Your task to perform on an android device: View the shopping cart on amazon. Add logitech g pro to the cart on amazon, then select checkout. Image 0: 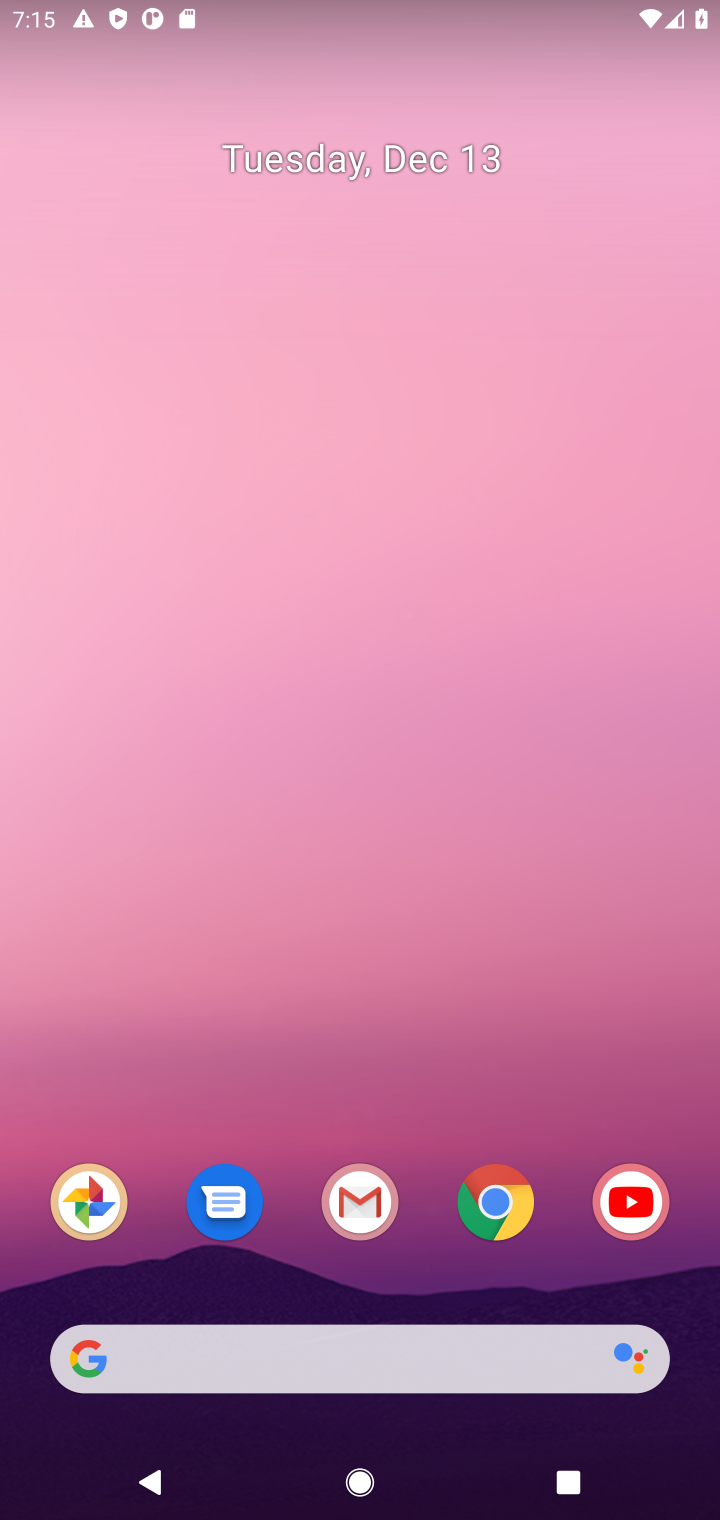
Step 0: click (504, 1214)
Your task to perform on an android device: View the shopping cart on amazon. Add logitech g pro to the cart on amazon, then select checkout. Image 1: 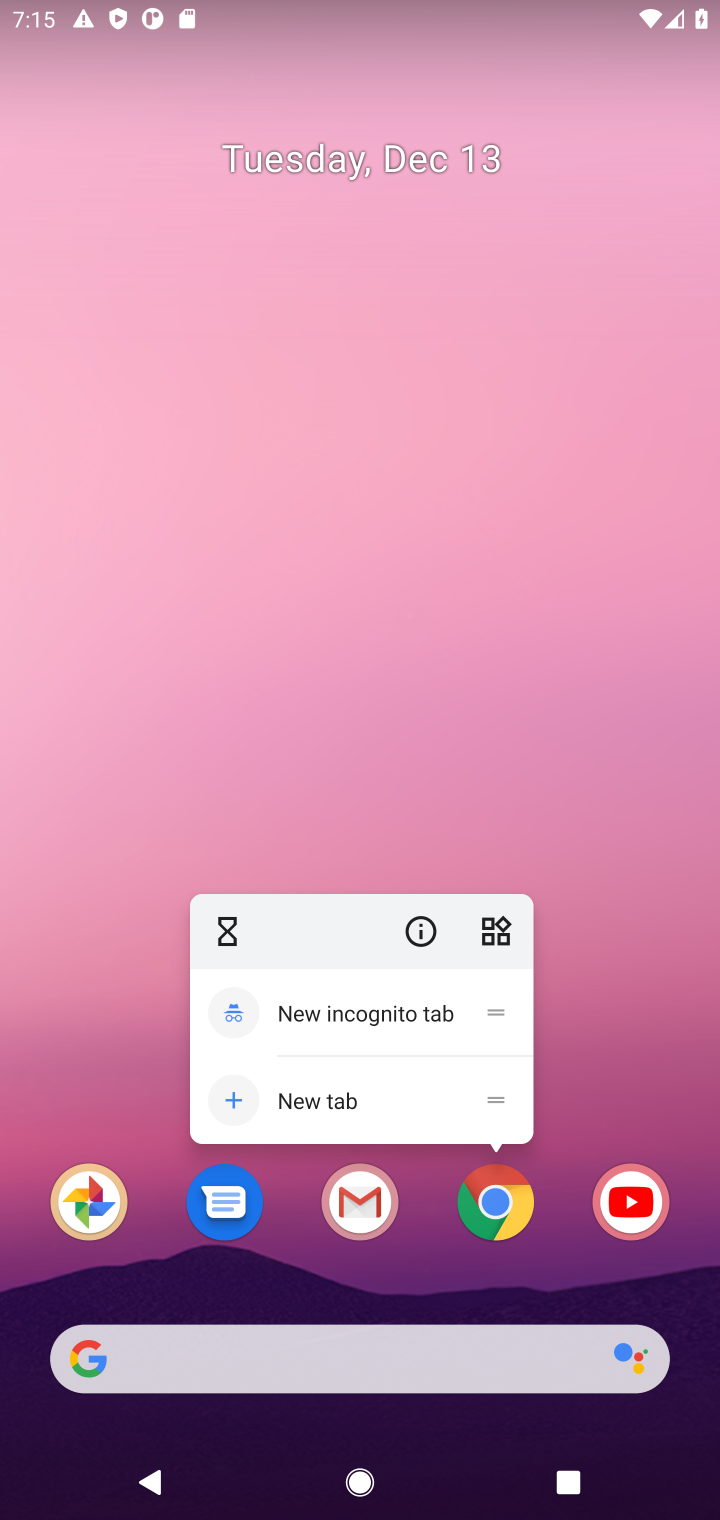
Step 1: click (504, 1214)
Your task to perform on an android device: View the shopping cart on amazon. Add logitech g pro to the cart on amazon, then select checkout. Image 2: 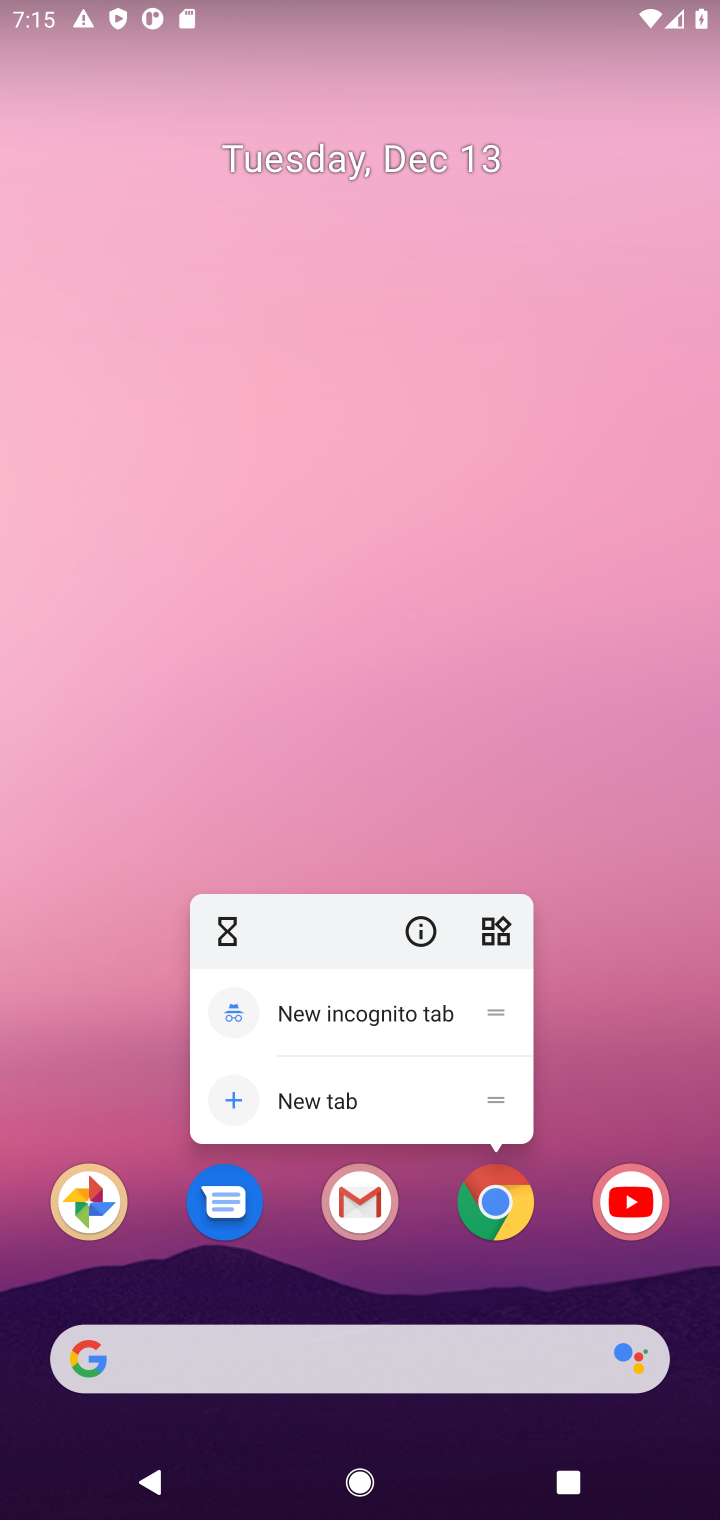
Step 2: click (485, 1208)
Your task to perform on an android device: View the shopping cart on amazon. Add logitech g pro to the cart on amazon, then select checkout. Image 3: 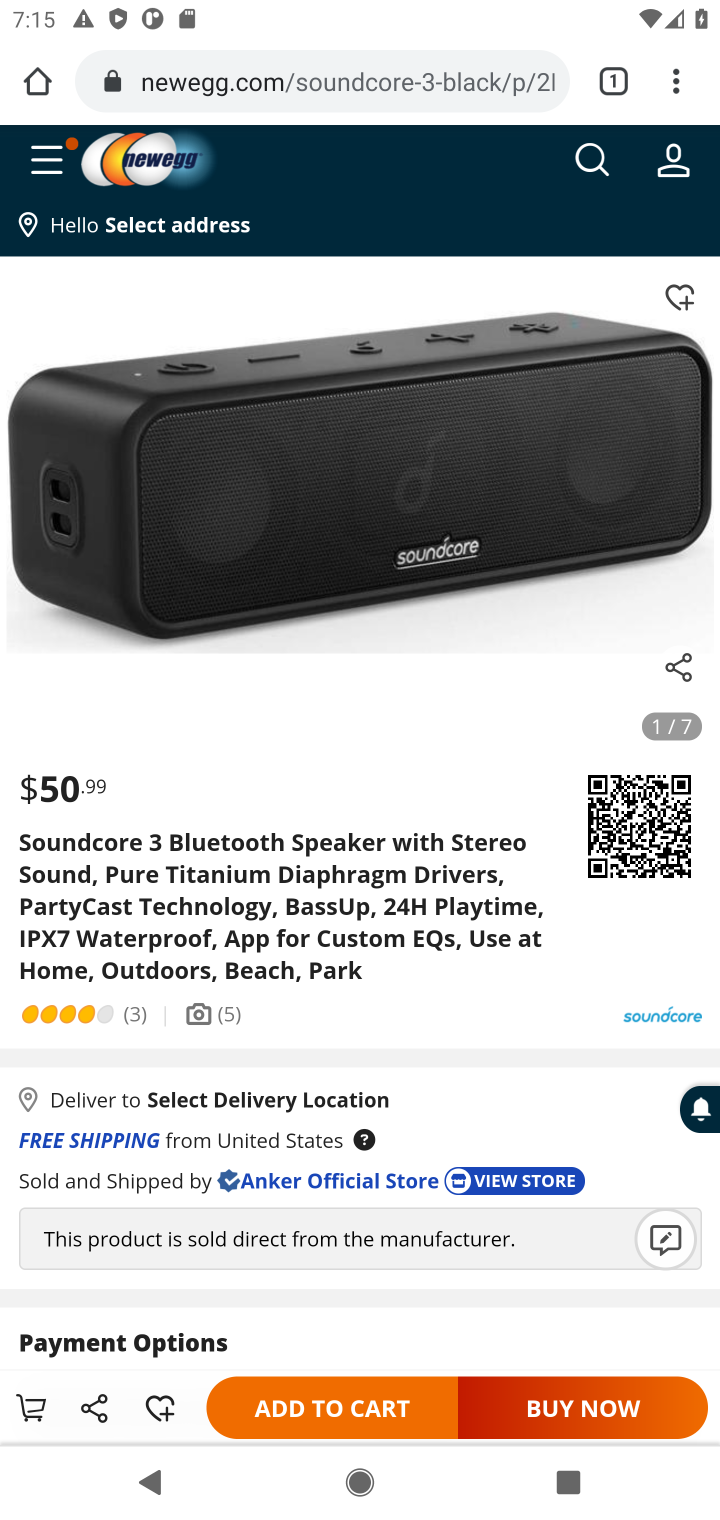
Step 3: click (359, 76)
Your task to perform on an android device: View the shopping cart on amazon. Add logitech g pro to the cart on amazon, then select checkout. Image 4: 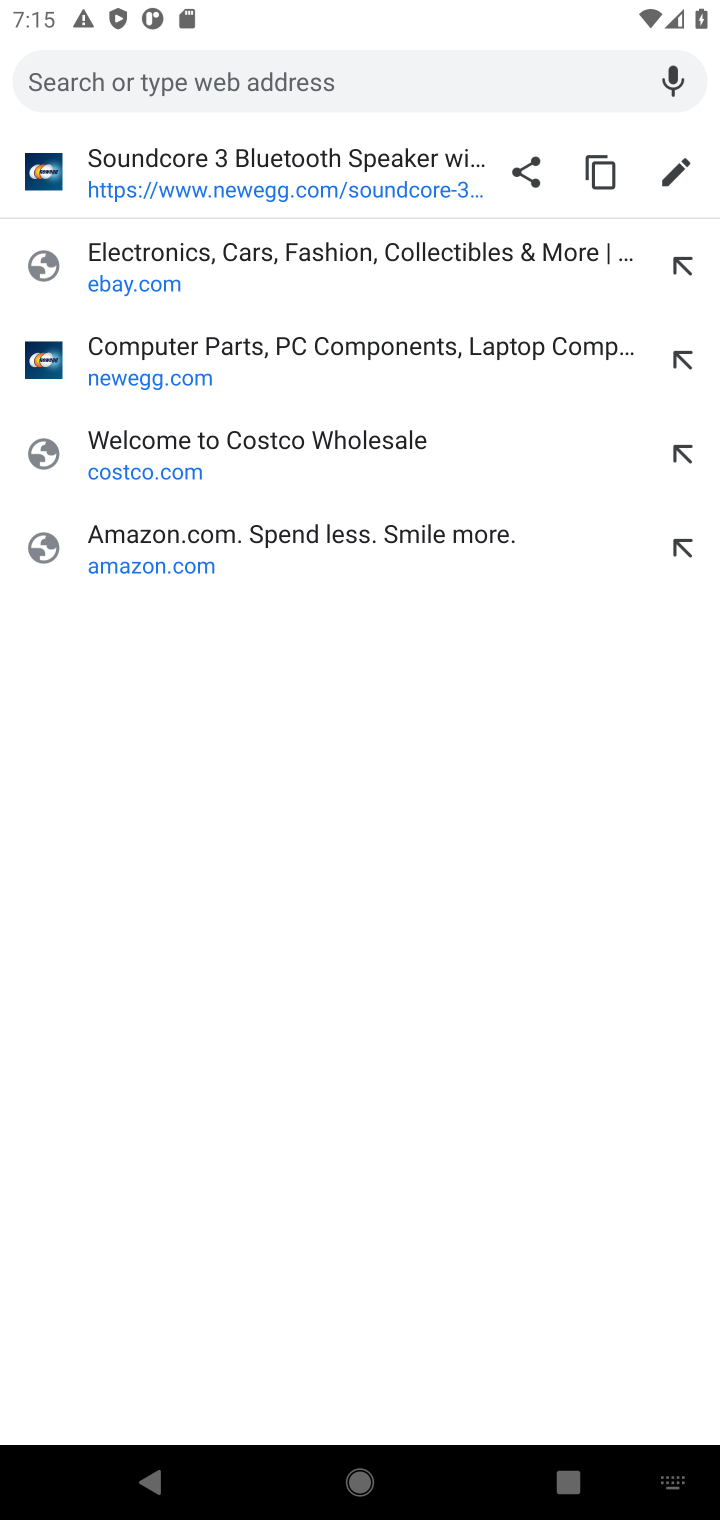
Step 4: click (160, 553)
Your task to perform on an android device: View the shopping cart on amazon. Add logitech g pro to the cart on amazon, then select checkout. Image 5: 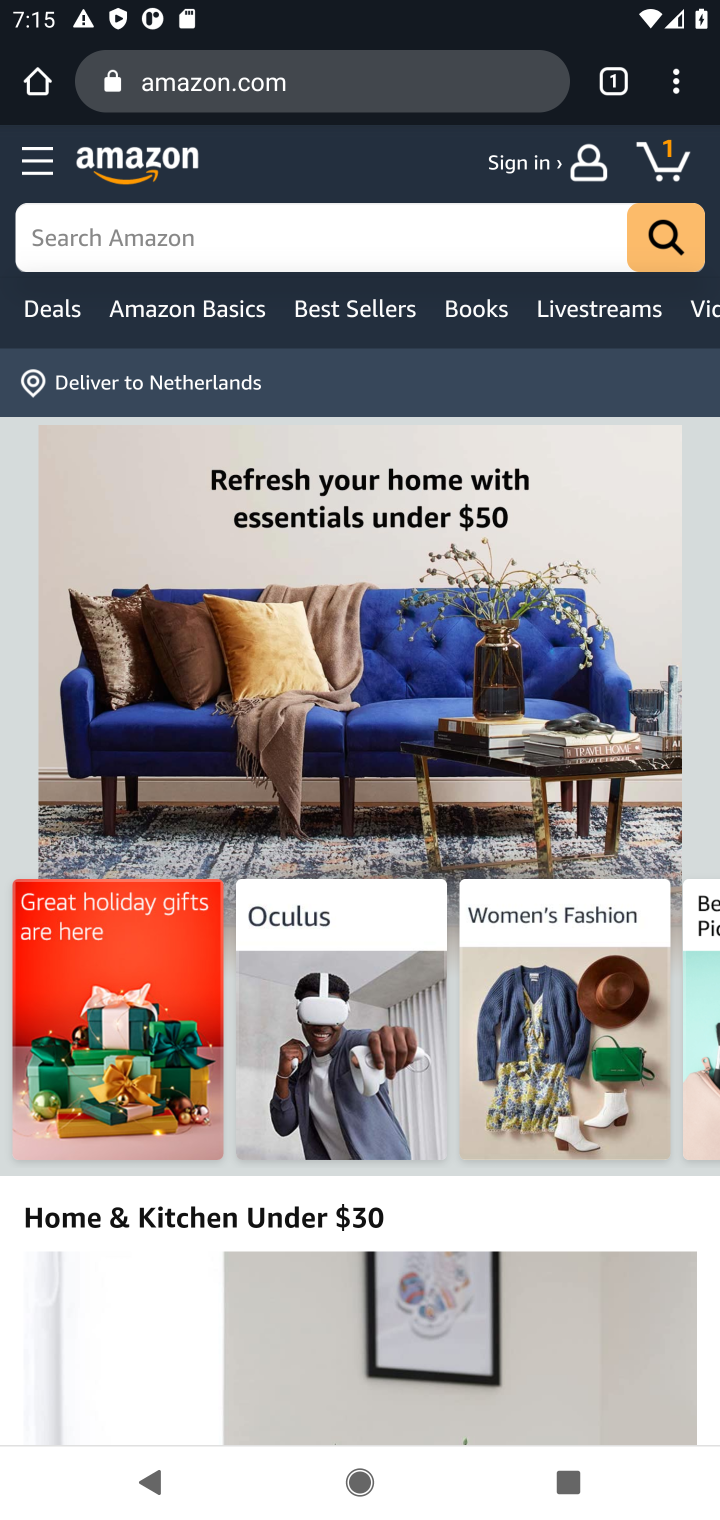
Step 5: click (664, 157)
Your task to perform on an android device: View the shopping cart on amazon. Add logitech g pro to the cart on amazon, then select checkout. Image 6: 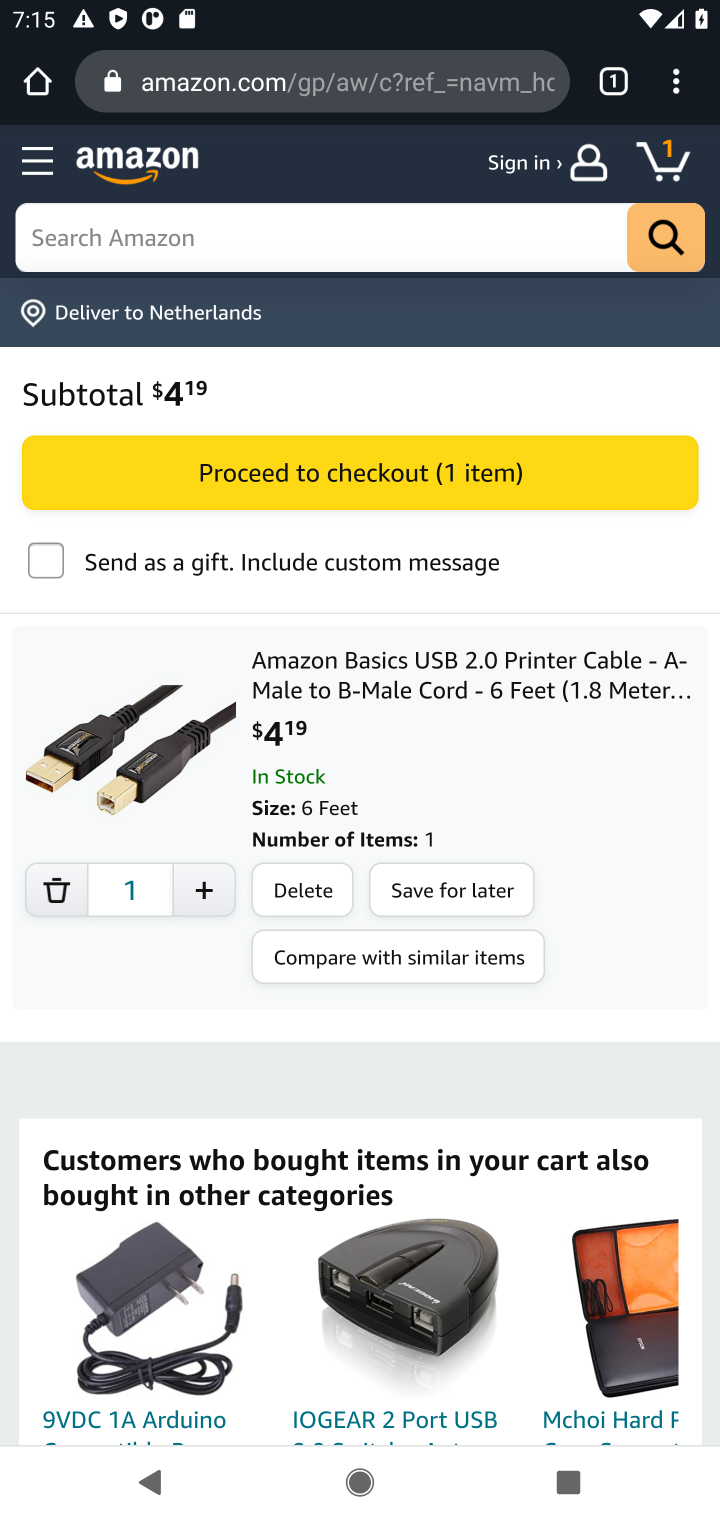
Step 6: click (123, 232)
Your task to perform on an android device: View the shopping cart on amazon. Add logitech g pro to the cart on amazon, then select checkout. Image 7: 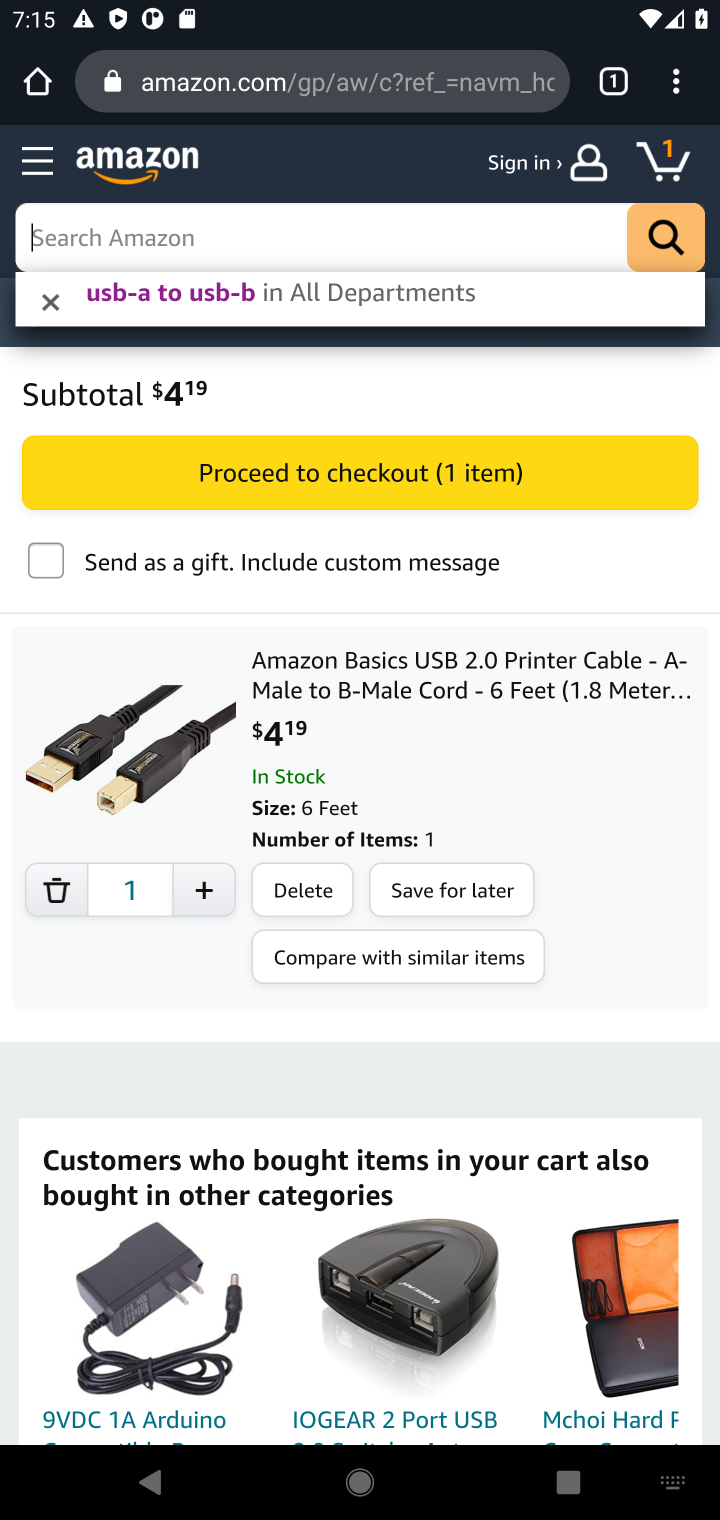
Step 7: type "logitech g pro"
Your task to perform on an android device: View the shopping cart on amazon. Add logitech g pro to the cart on amazon, then select checkout. Image 8: 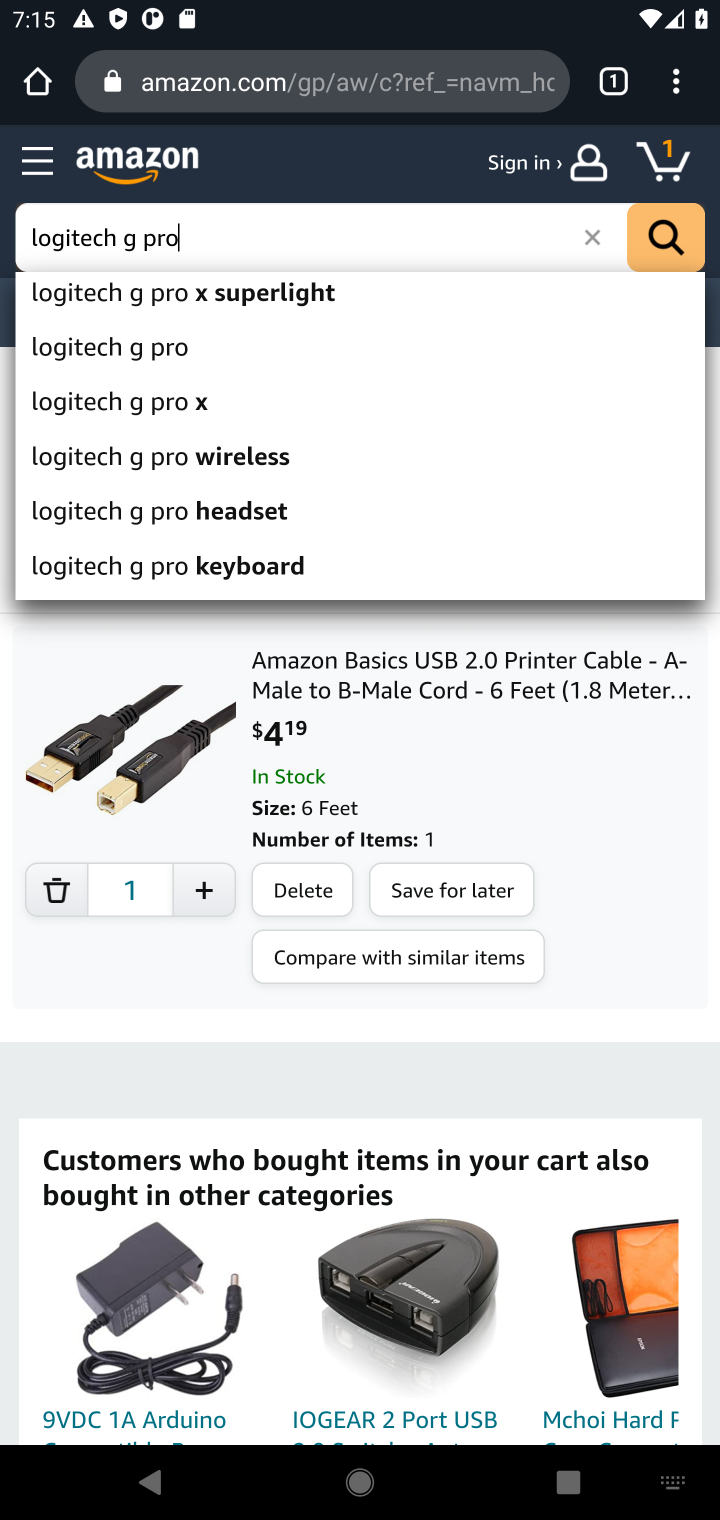
Step 8: click (160, 348)
Your task to perform on an android device: View the shopping cart on amazon. Add logitech g pro to the cart on amazon, then select checkout. Image 9: 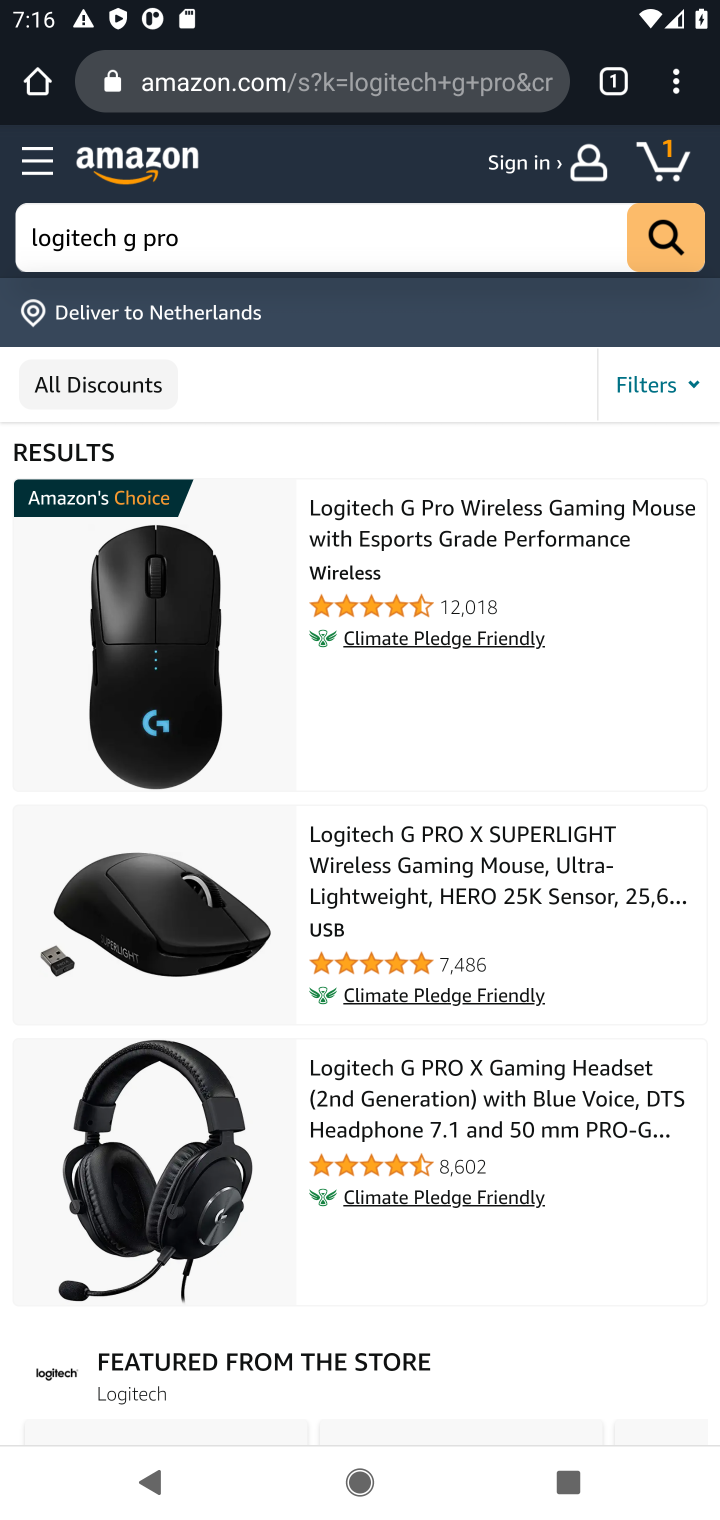
Step 9: drag from (374, 1112) to (344, 606)
Your task to perform on an android device: View the shopping cart on amazon. Add logitech g pro to the cart on amazon, then select checkout. Image 10: 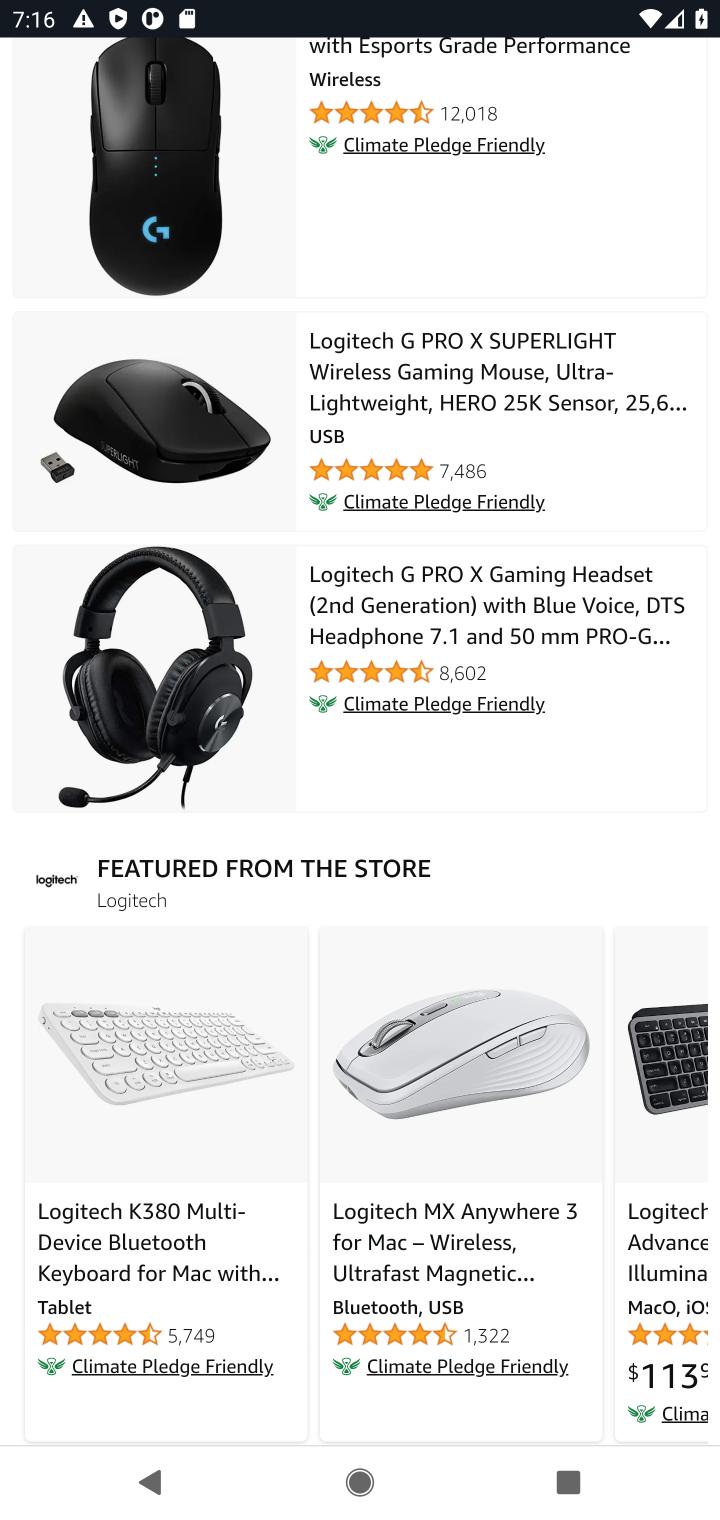
Step 10: drag from (283, 1230) to (365, 564)
Your task to perform on an android device: View the shopping cart on amazon. Add logitech g pro to the cart on amazon, then select checkout. Image 11: 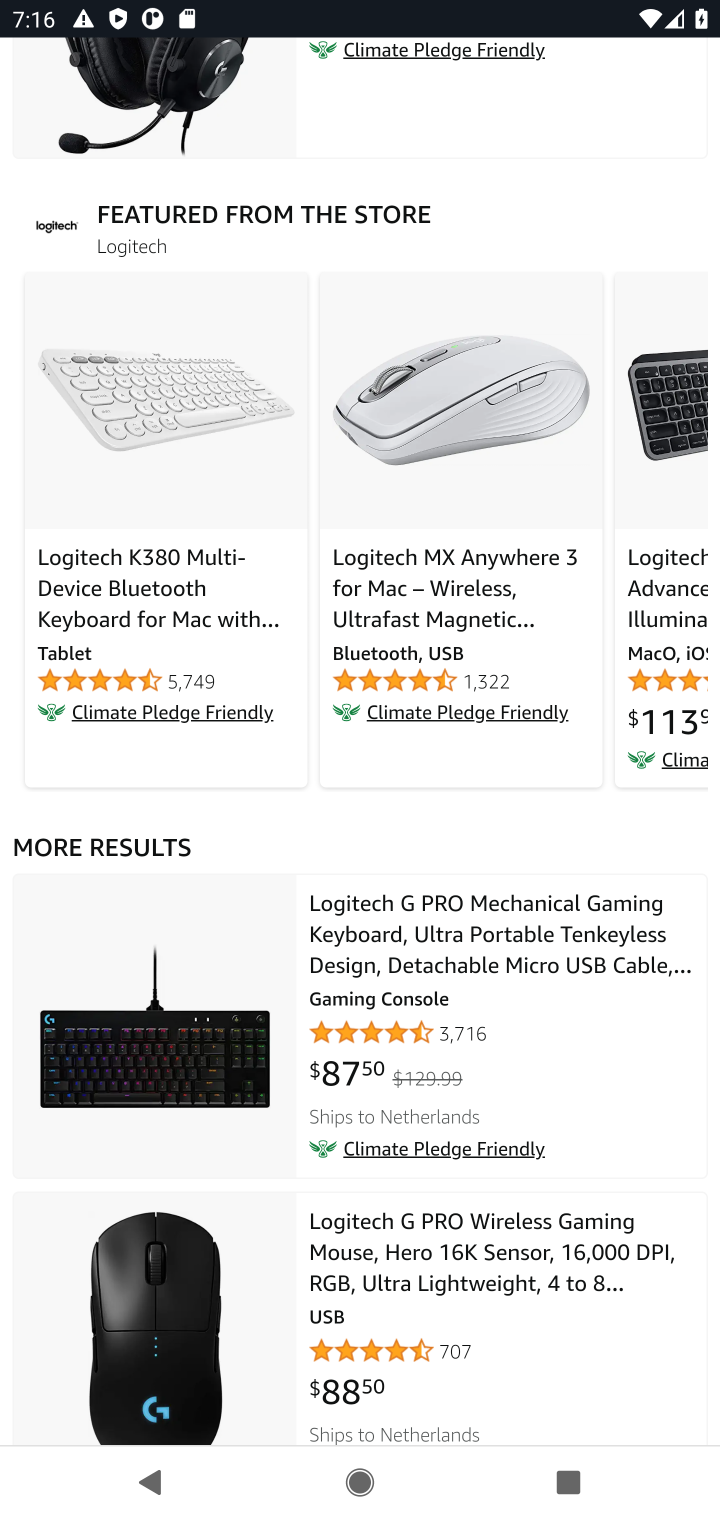
Step 11: click (387, 955)
Your task to perform on an android device: View the shopping cart on amazon. Add logitech g pro to the cart on amazon, then select checkout. Image 12: 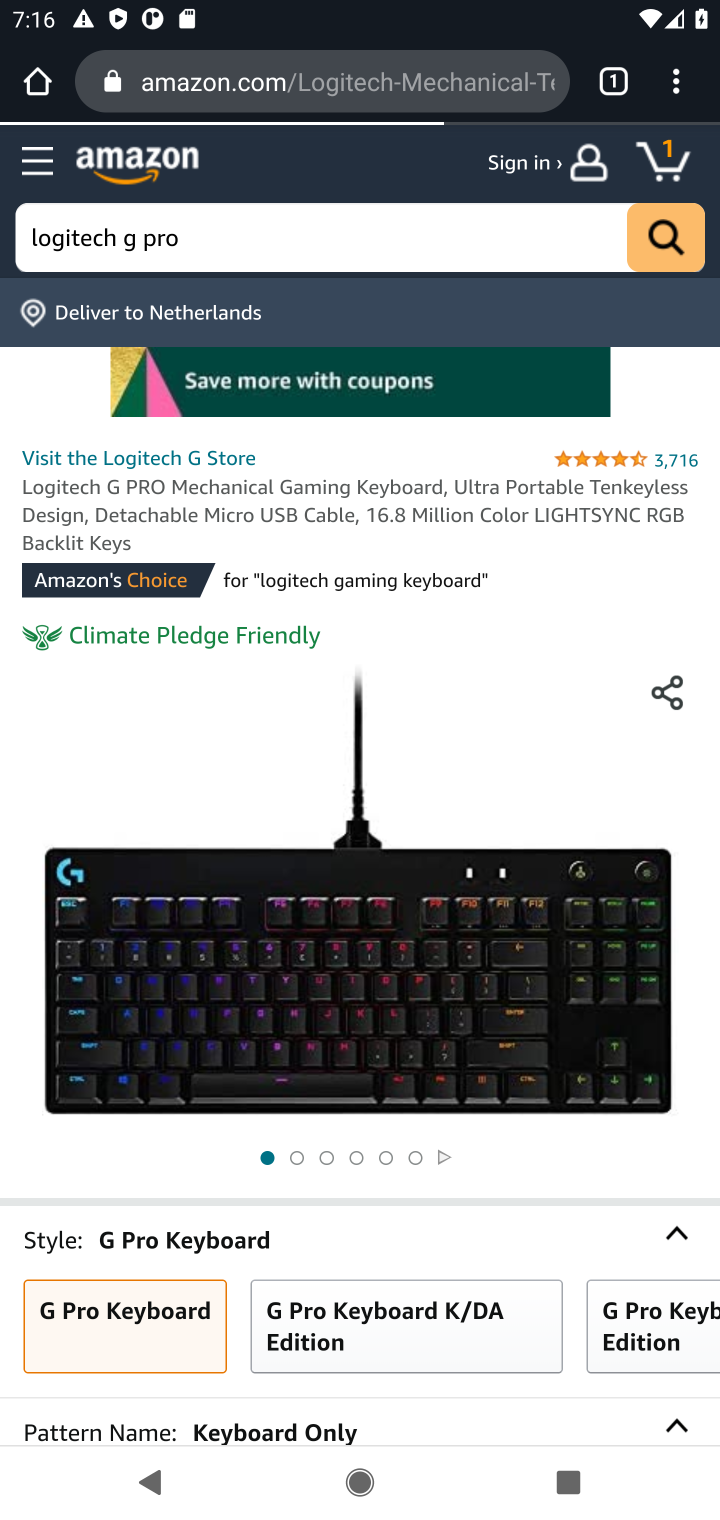
Step 12: drag from (278, 1213) to (229, 600)
Your task to perform on an android device: View the shopping cart on amazon. Add logitech g pro to the cart on amazon, then select checkout. Image 13: 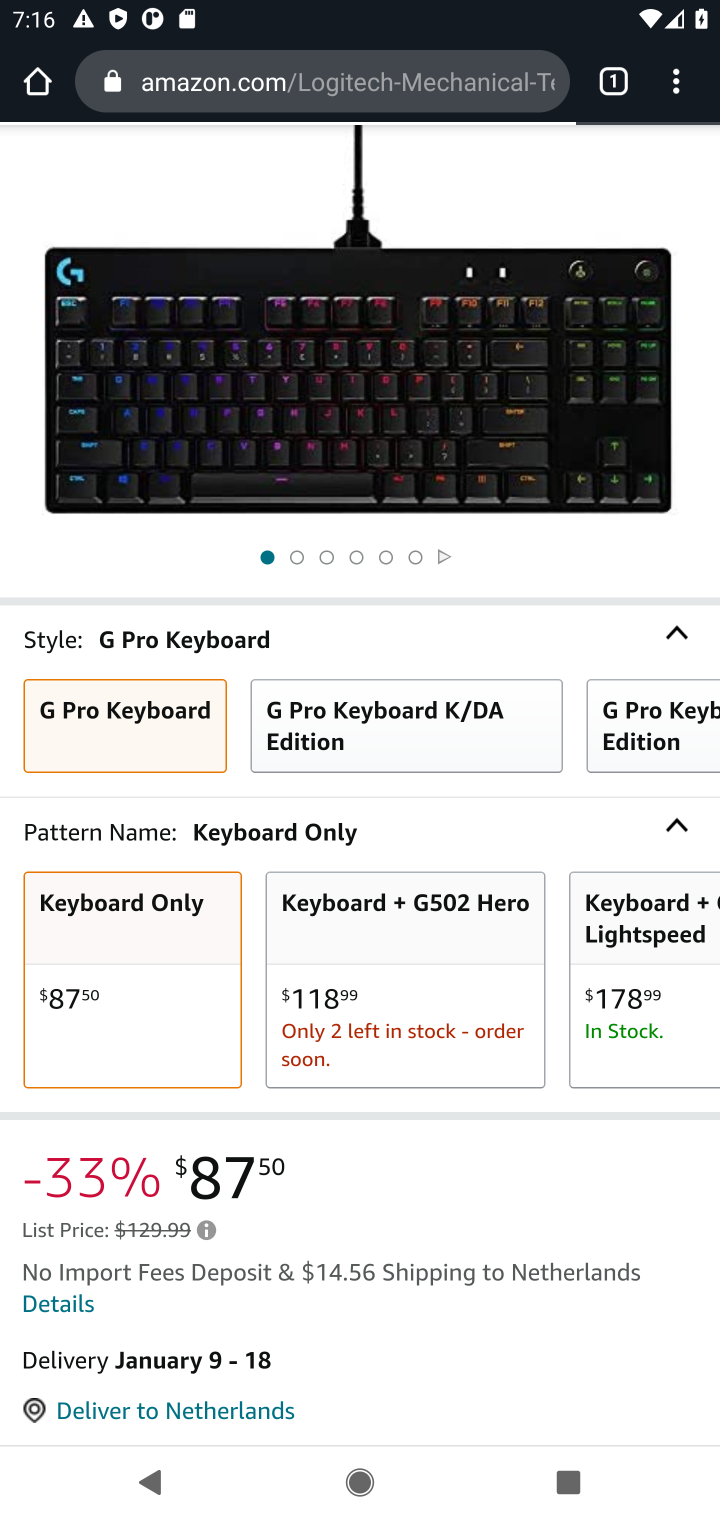
Step 13: drag from (295, 1201) to (250, 619)
Your task to perform on an android device: View the shopping cart on amazon. Add logitech g pro to the cart on amazon, then select checkout. Image 14: 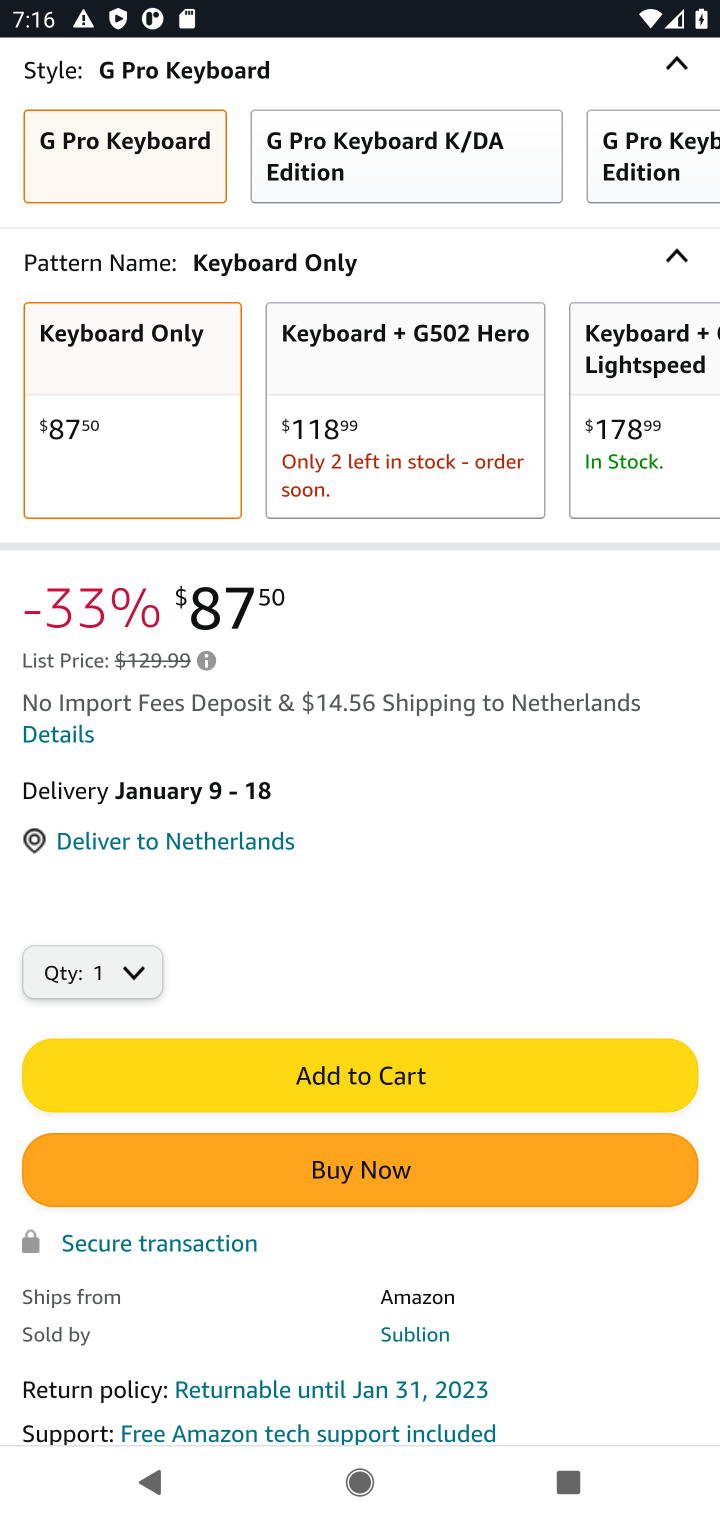
Step 14: click (308, 1064)
Your task to perform on an android device: View the shopping cart on amazon. Add logitech g pro to the cart on amazon, then select checkout. Image 15: 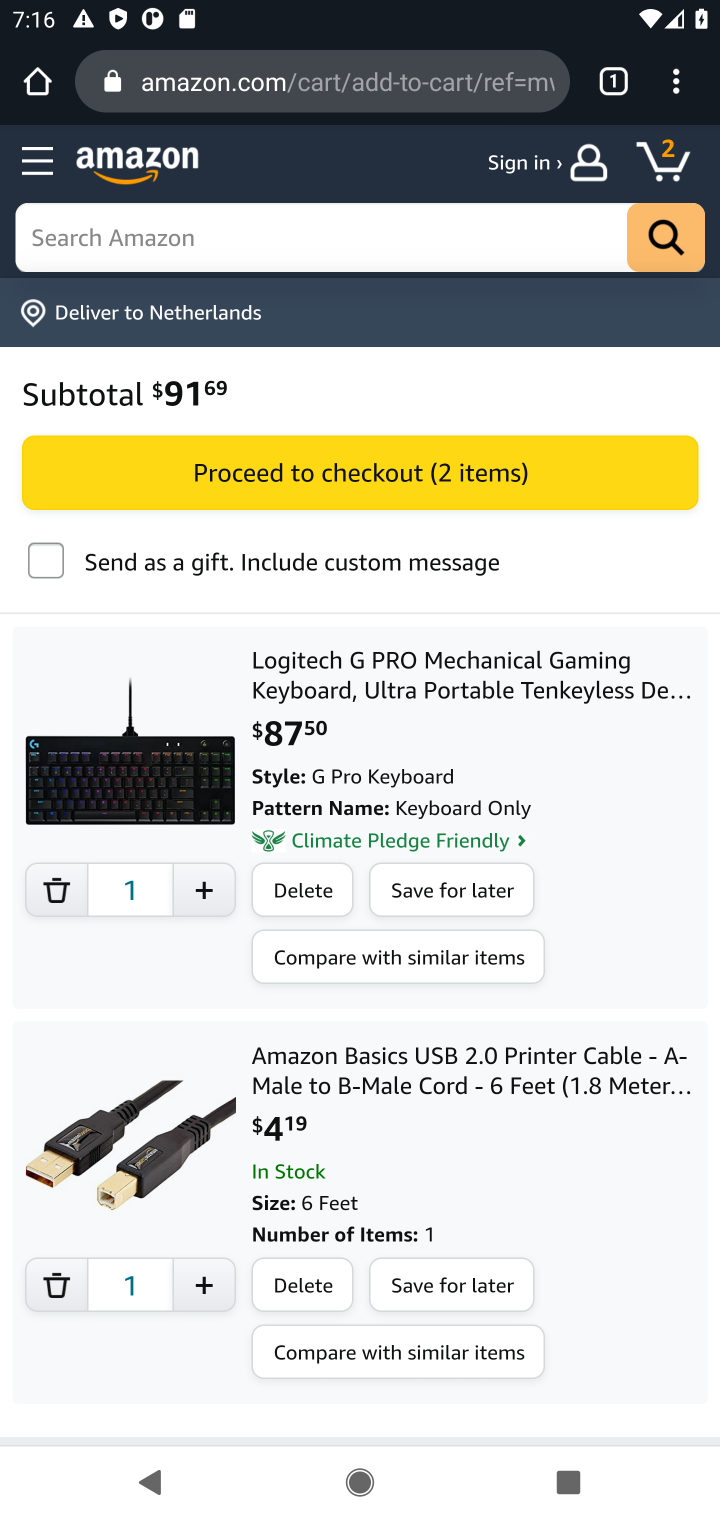
Step 15: click (299, 486)
Your task to perform on an android device: View the shopping cart on amazon. Add logitech g pro to the cart on amazon, then select checkout. Image 16: 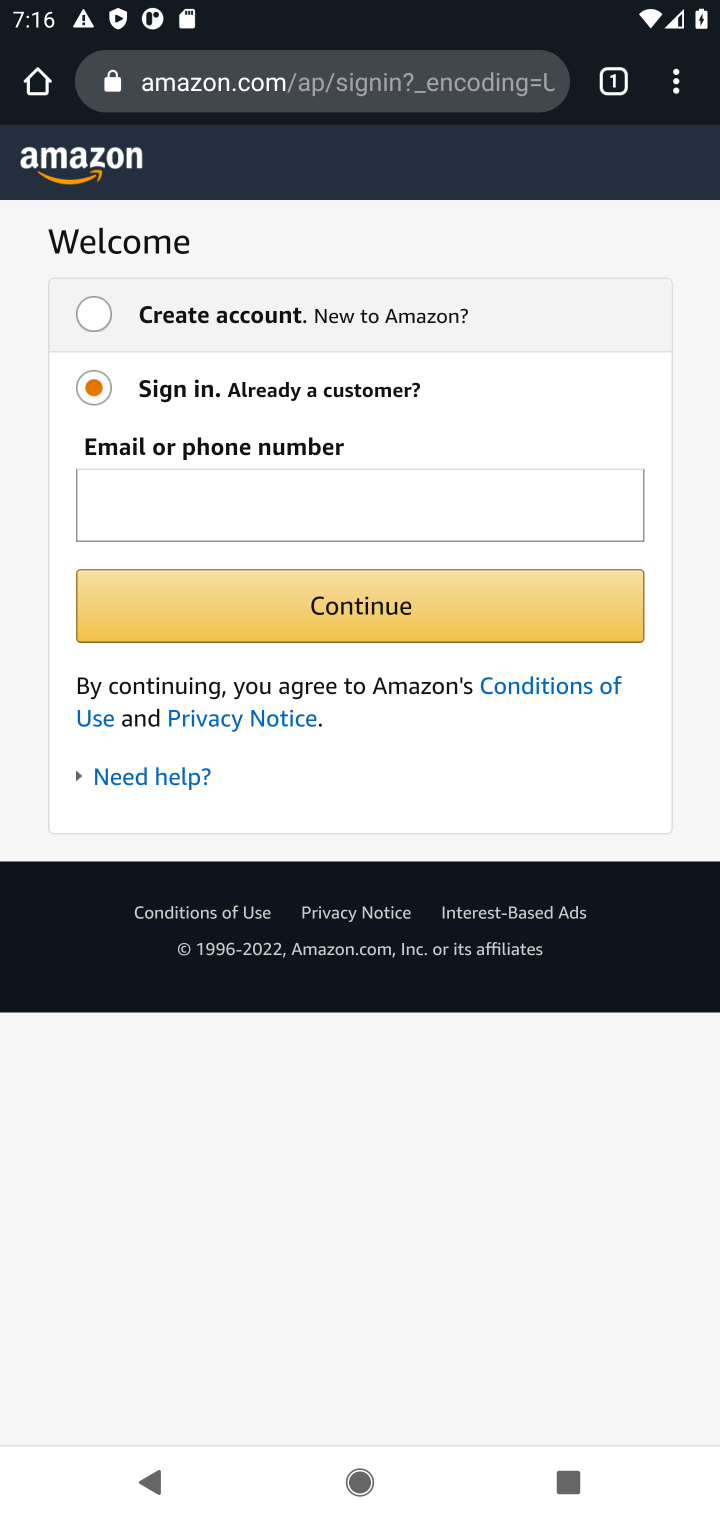
Step 16: task complete